Your task to perform on an android device: turn off sleep mode Image 0: 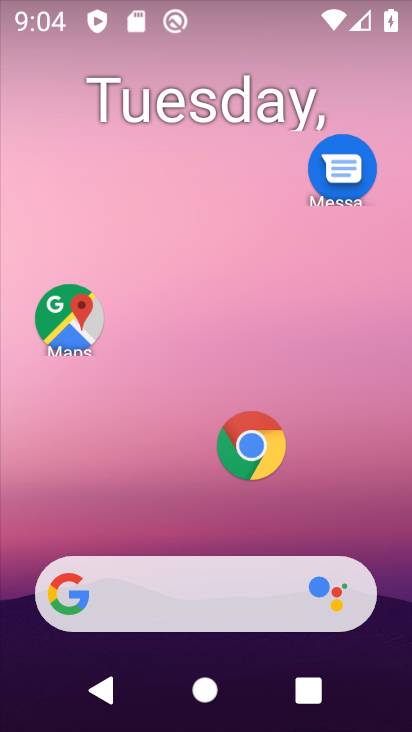
Step 0: drag from (39, 618) to (320, 168)
Your task to perform on an android device: turn off sleep mode Image 1: 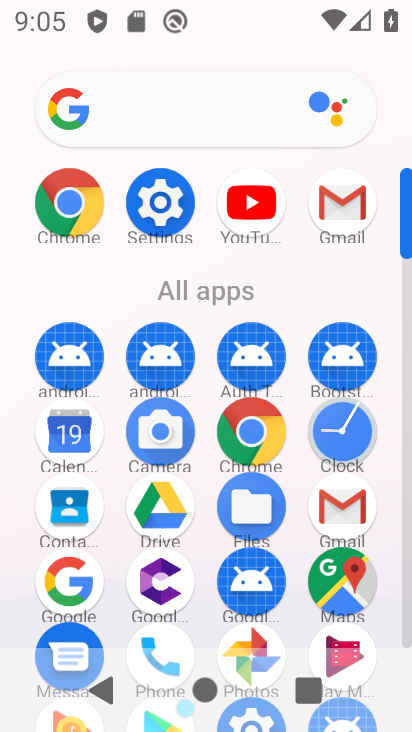
Step 1: click (167, 201)
Your task to perform on an android device: turn off sleep mode Image 2: 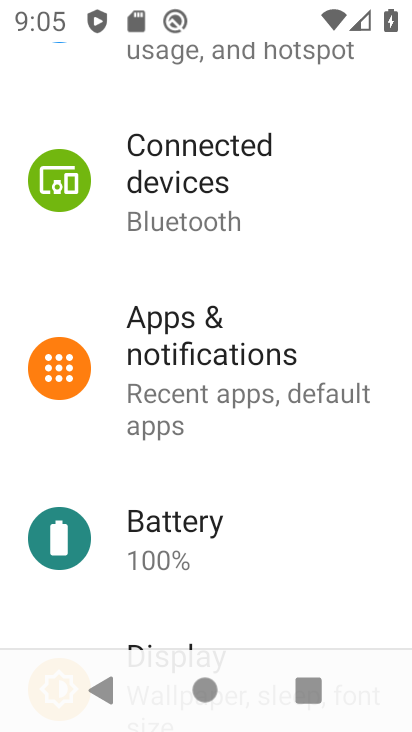
Step 2: task complete